Your task to perform on an android device: Open Google Chrome and open the bookmarks view Image 0: 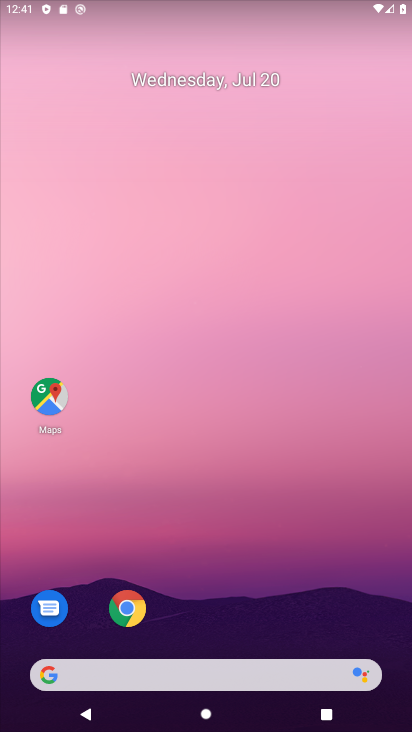
Step 0: click (130, 610)
Your task to perform on an android device: Open Google Chrome and open the bookmarks view Image 1: 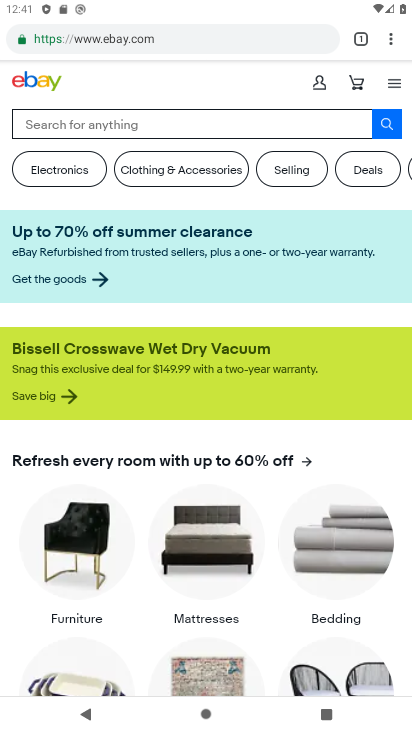
Step 1: click (390, 38)
Your task to perform on an android device: Open Google Chrome and open the bookmarks view Image 2: 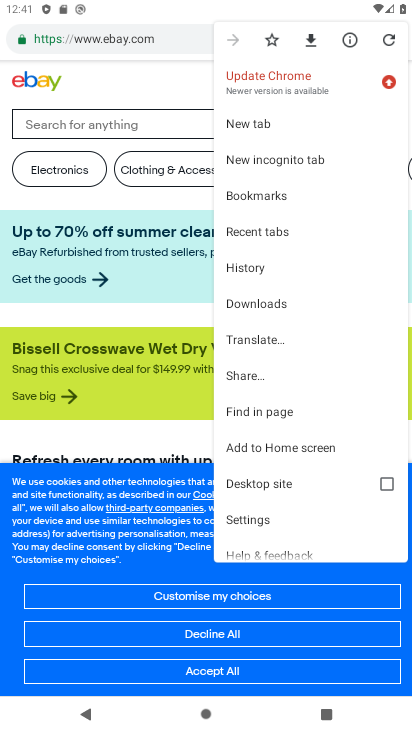
Step 2: click (256, 190)
Your task to perform on an android device: Open Google Chrome and open the bookmarks view Image 3: 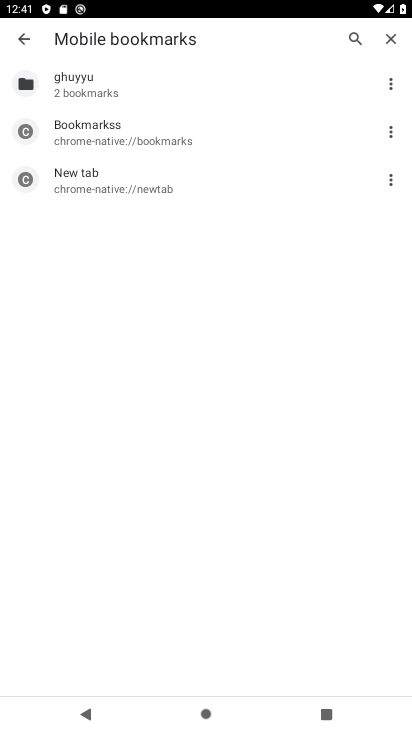
Step 3: task complete